Your task to perform on an android device: turn off javascript in the chrome app Image 0: 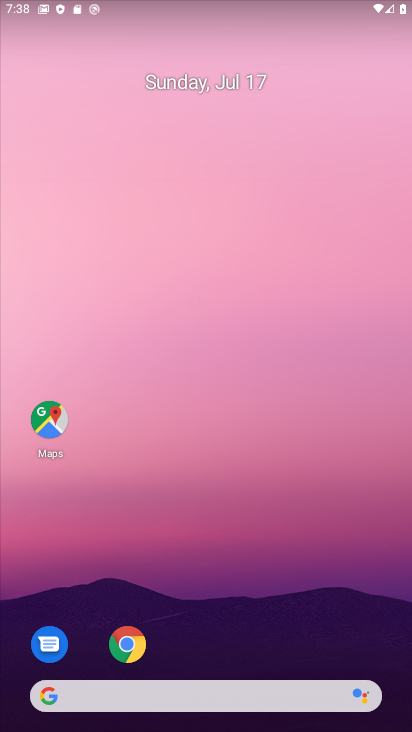
Step 0: drag from (259, 632) to (271, 3)
Your task to perform on an android device: turn off javascript in the chrome app Image 1: 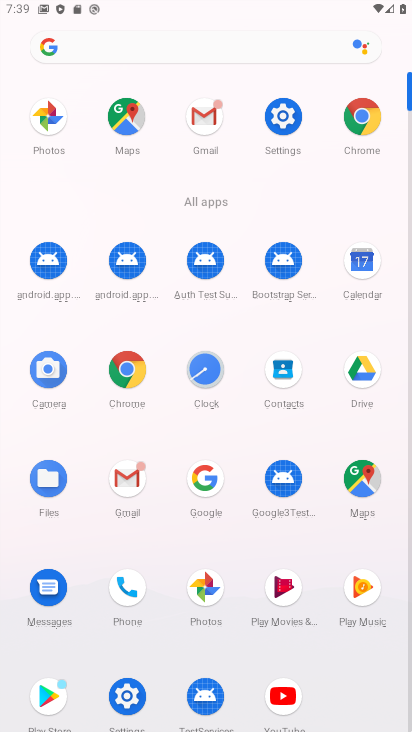
Step 1: click (362, 122)
Your task to perform on an android device: turn off javascript in the chrome app Image 2: 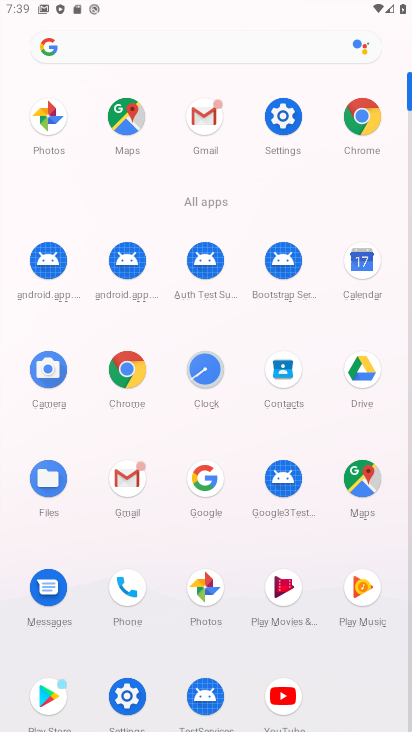
Step 2: click (375, 116)
Your task to perform on an android device: turn off javascript in the chrome app Image 3: 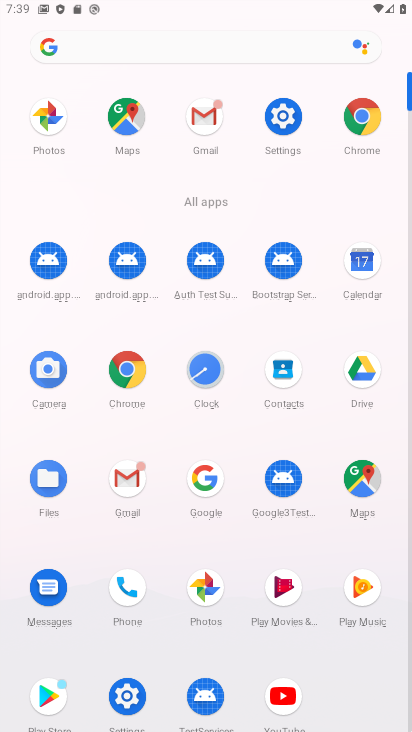
Step 3: click (371, 111)
Your task to perform on an android device: turn off javascript in the chrome app Image 4: 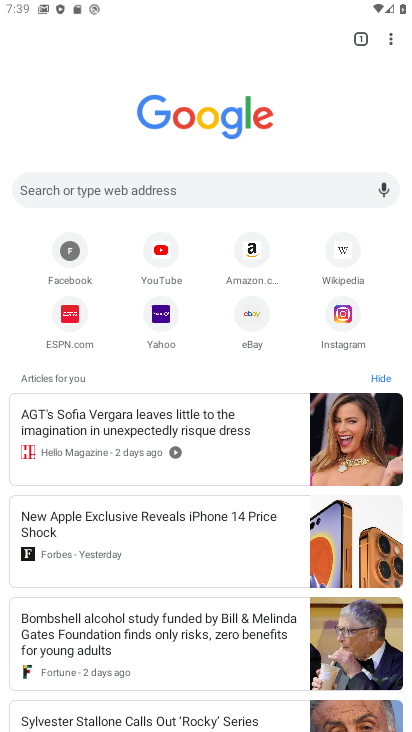
Step 4: drag from (395, 32) to (261, 327)
Your task to perform on an android device: turn off javascript in the chrome app Image 5: 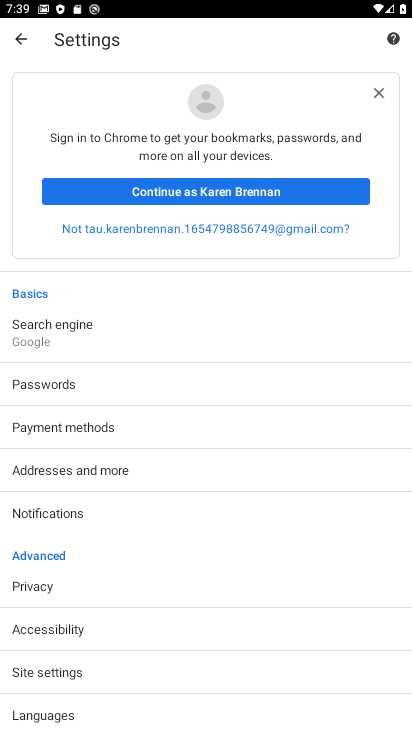
Step 5: drag from (121, 717) to (242, 285)
Your task to perform on an android device: turn off javascript in the chrome app Image 6: 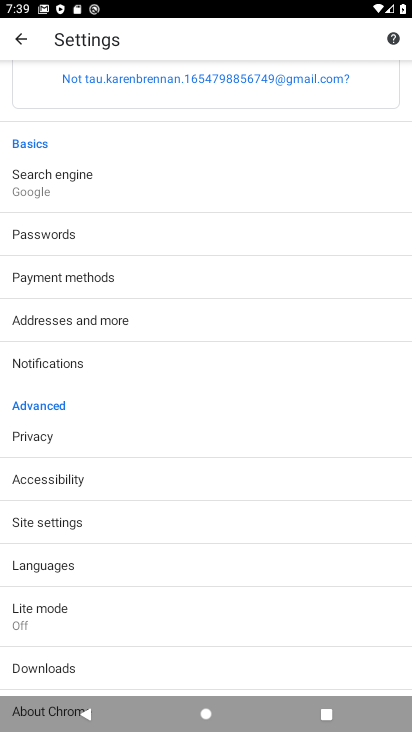
Step 6: click (59, 526)
Your task to perform on an android device: turn off javascript in the chrome app Image 7: 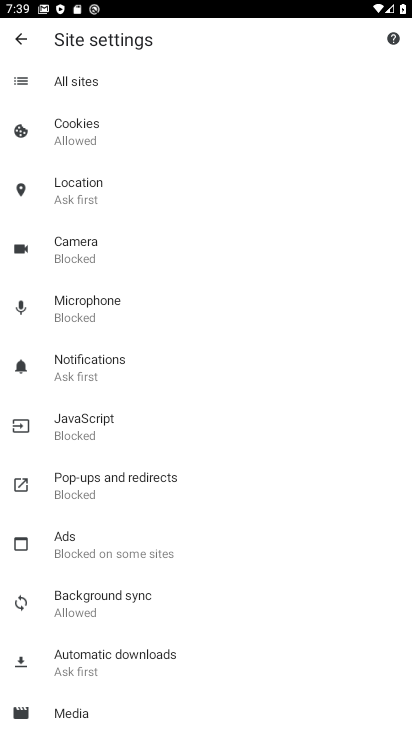
Step 7: click (85, 430)
Your task to perform on an android device: turn off javascript in the chrome app Image 8: 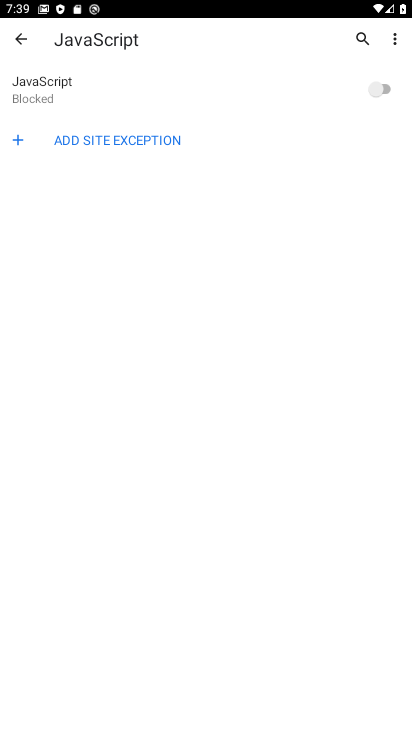
Step 8: task complete